Your task to perform on an android device: What is the news today? Image 0: 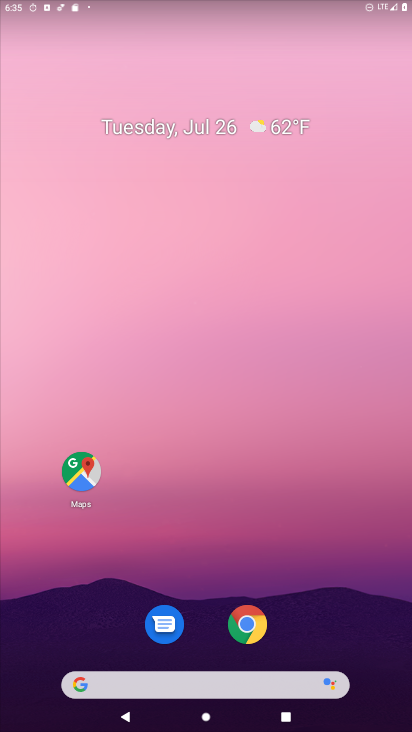
Step 0: drag from (243, 658) to (370, 113)
Your task to perform on an android device: What is the news today? Image 1: 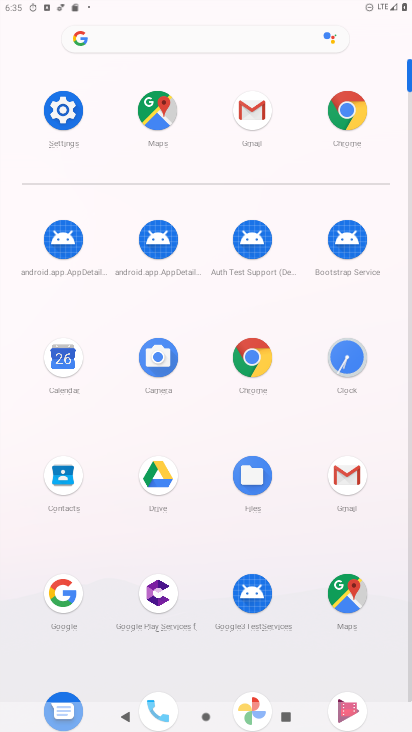
Step 1: click (255, 364)
Your task to perform on an android device: What is the news today? Image 2: 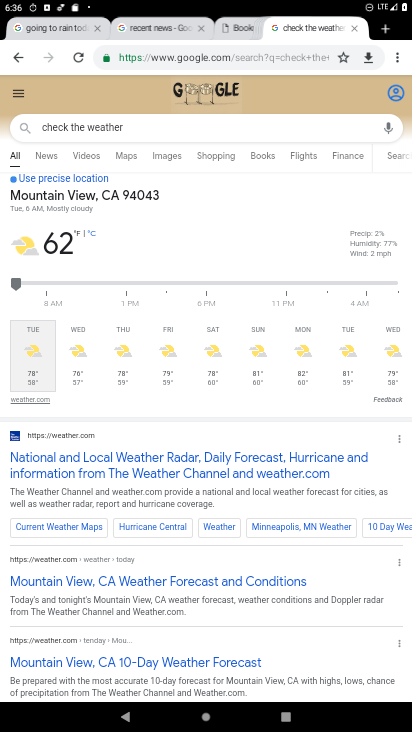
Step 2: click (176, 55)
Your task to perform on an android device: What is the news today? Image 3: 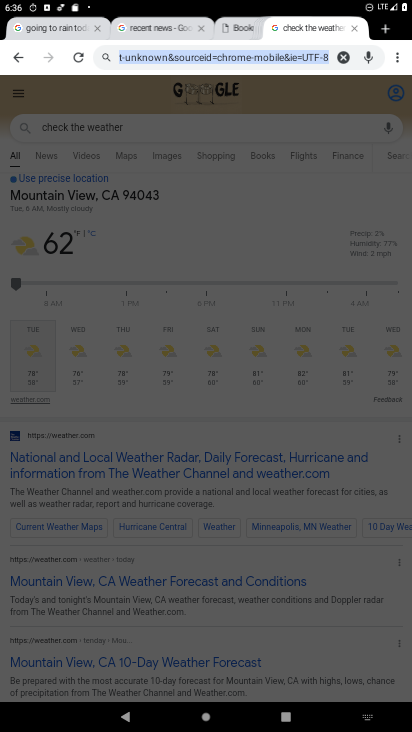
Step 3: type "news today"
Your task to perform on an android device: What is the news today? Image 4: 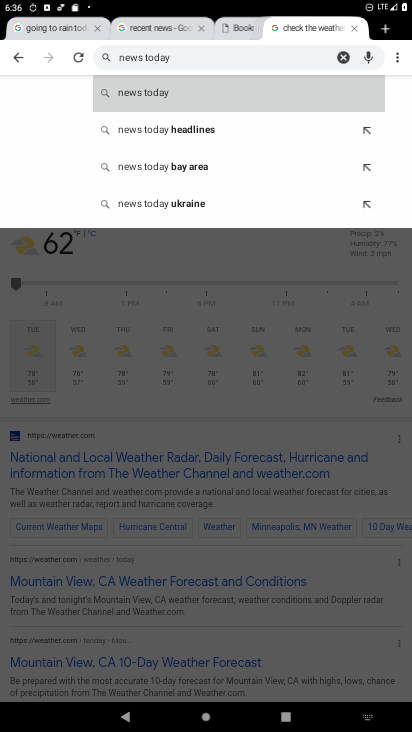
Step 4: click (164, 103)
Your task to perform on an android device: What is the news today? Image 5: 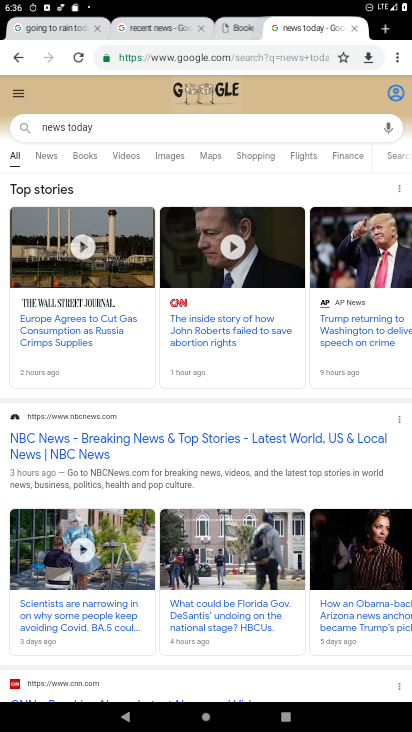
Step 5: task complete